Your task to perform on an android device: change alarm snooze length Image 0: 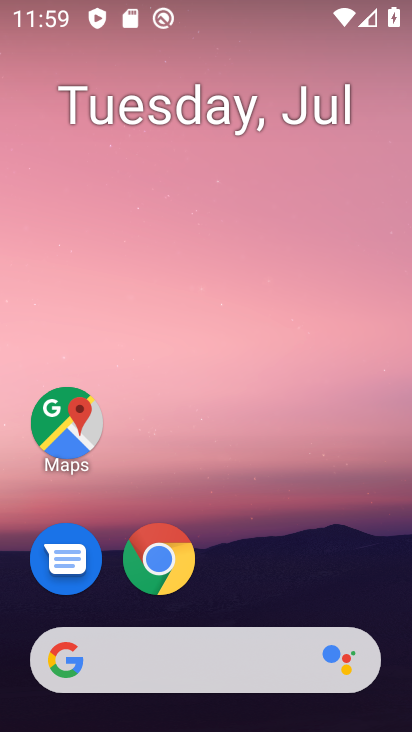
Step 0: drag from (262, 511) to (217, 40)
Your task to perform on an android device: change alarm snooze length Image 1: 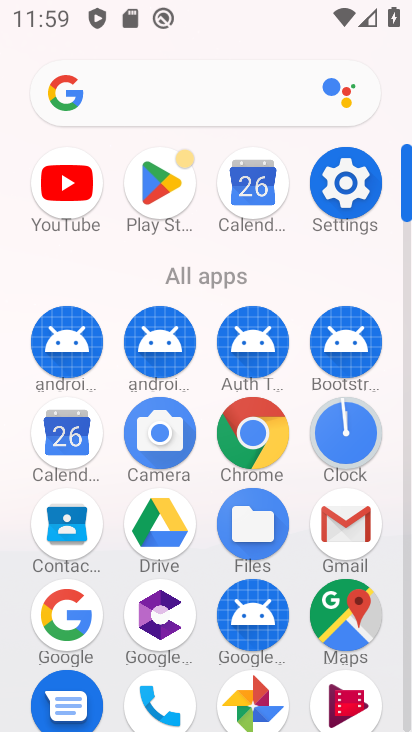
Step 1: drag from (353, 504) to (220, 91)
Your task to perform on an android device: change alarm snooze length Image 2: 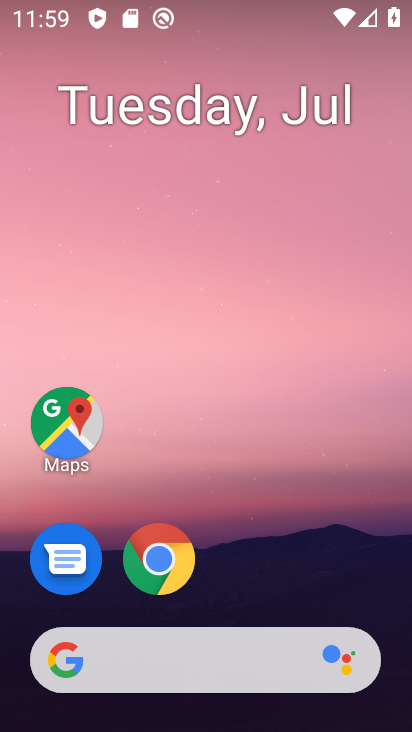
Step 2: drag from (228, 619) to (243, 31)
Your task to perform on an android device: change alarm snooze length Image 3: 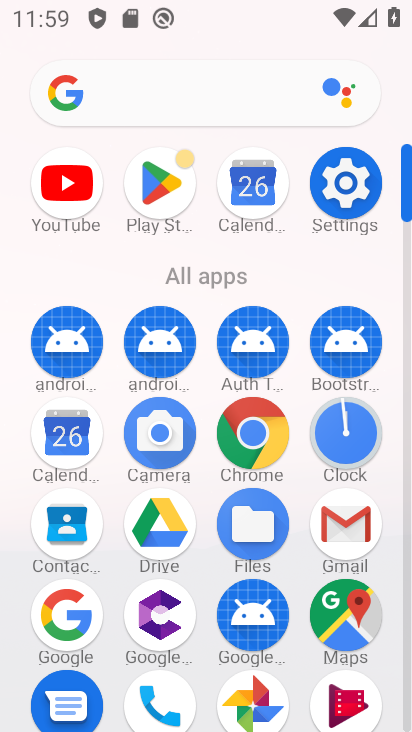
Step 3: click (342, 426)
Your task to perform on an android device: change alarm snooze length Image 4: 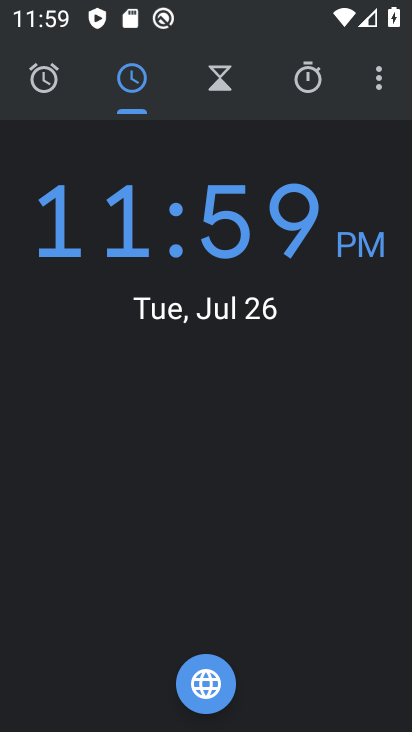
Step 4: click (380, 72)
Your task to perform on an android device: change alarm snooze length Image 5: 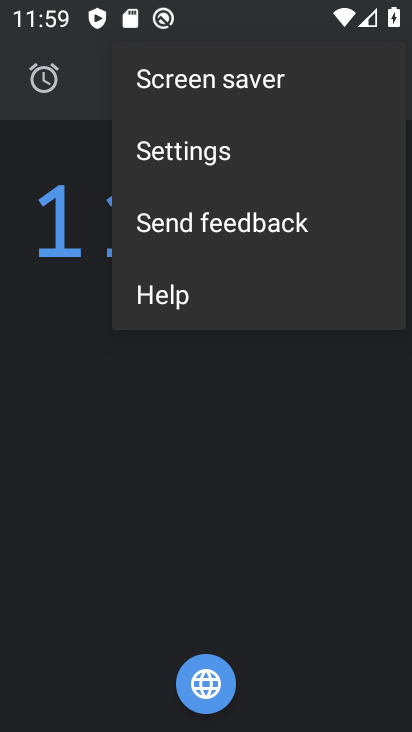
Step 5: click (227, 162)
Your task to perform on an android device: change alarm snooze length Image 6: 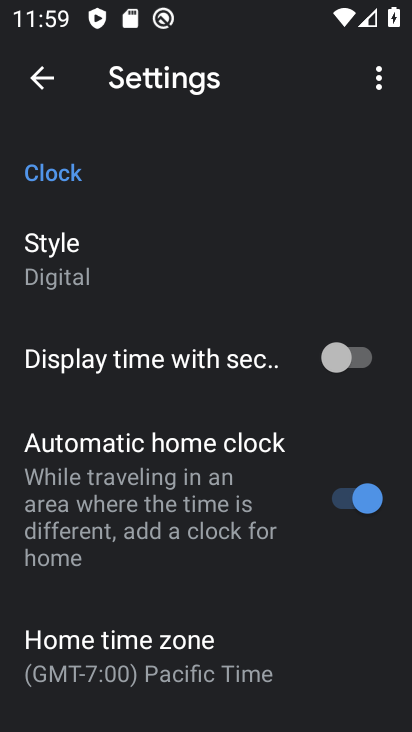
Step 6: drag from (170, 671) to (229, 58)
Your task to perform on an android device: change alarm snooze length Image 7: 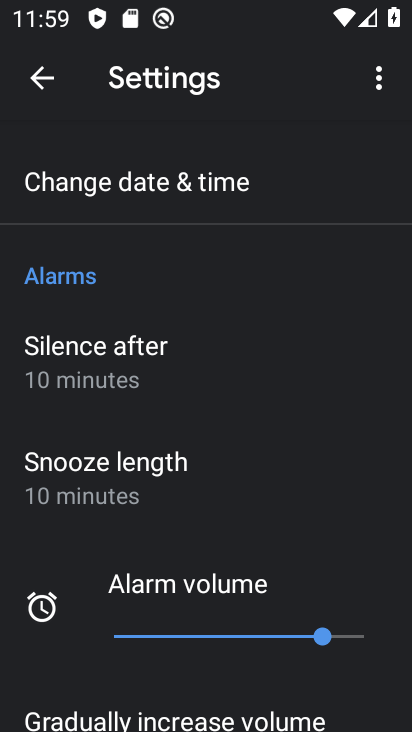
Step 7: click (133, 483)
Your task to perform on an android device: change alarm snooze length Image 8: 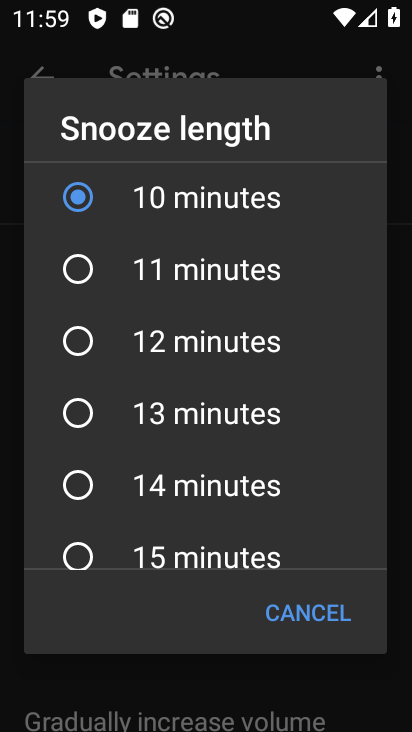
Step 8: click (98, 265)
Your task to perform on an android device: change alarm snooze length Image 9: 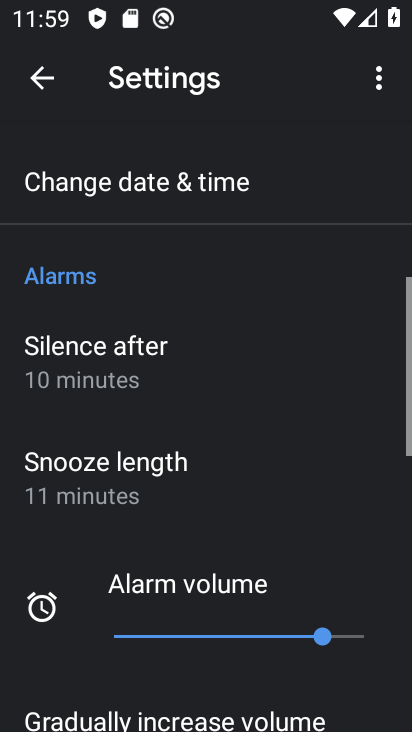
Step 9: task complete